Your task to perform on an android device: What's on my calendar today? Image 0: 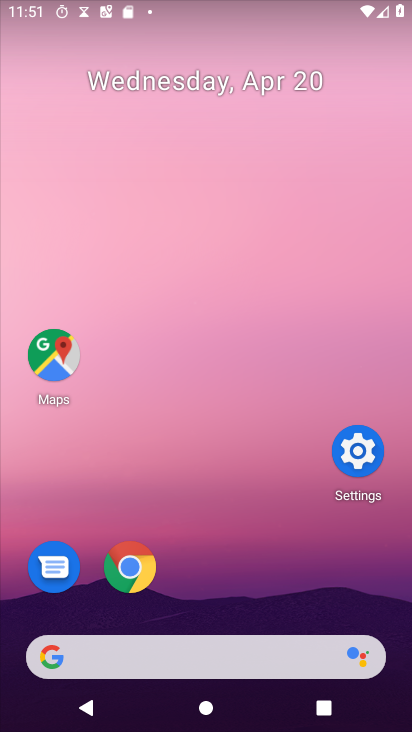
Step 0: drag from (289, 547) to (285, 126)
Your task to perform on an android device: What's on my calendar today? Image 1: 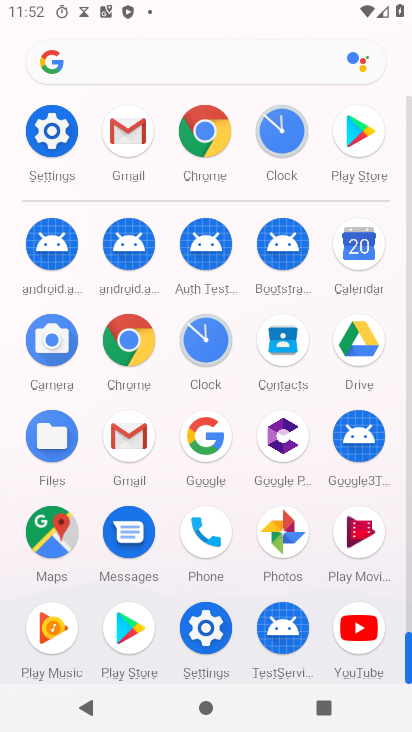
Step 1: click (355, 273)
Your task to perform on an android device: What's on my calendar today? Image 2: 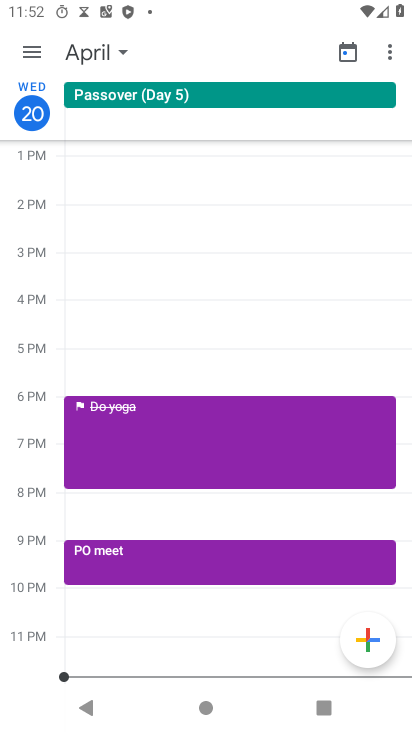
Step 2: task complete